Your task to perform on an android device: Search for the new Nintendo switch on Walmart. Image 0: 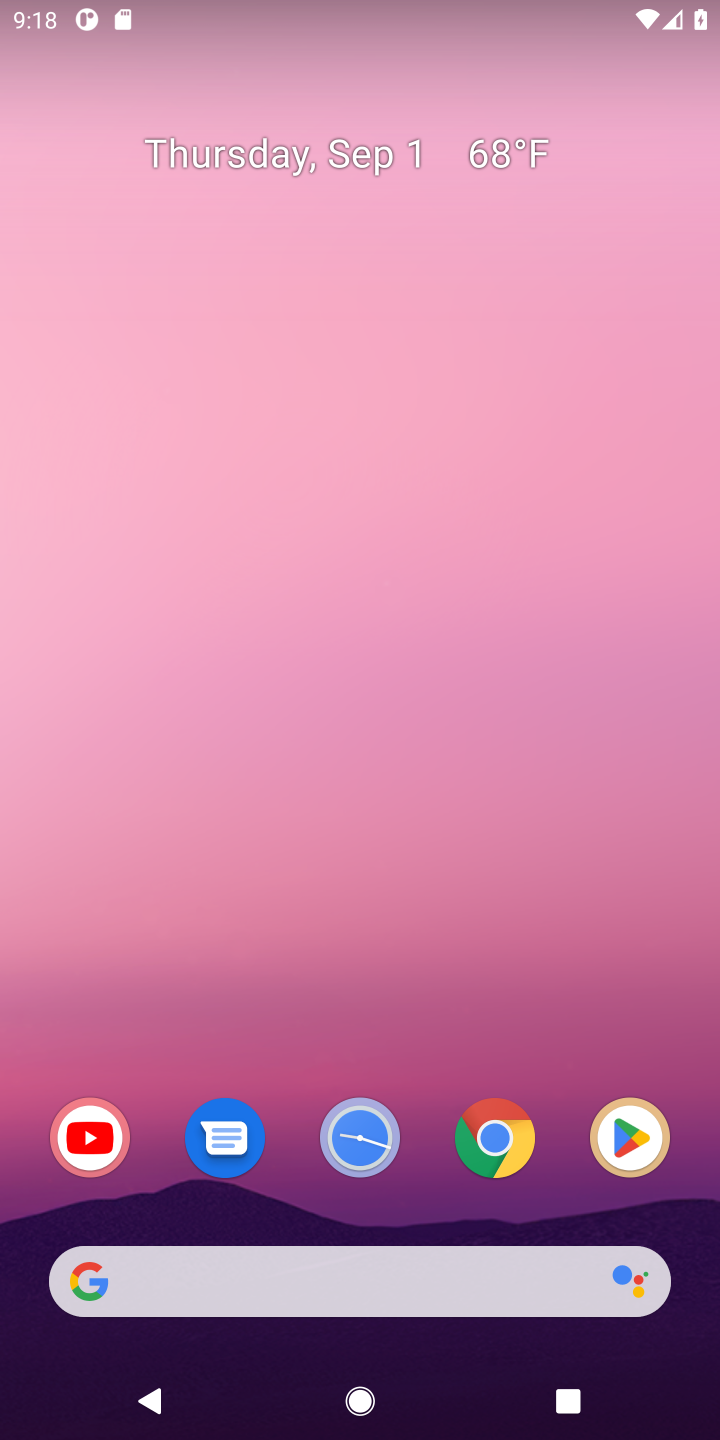
Step 0: click (492, 1133)
Your task to perform on an android device: Search for the new Nintendo switch on Walmart. Image 1: 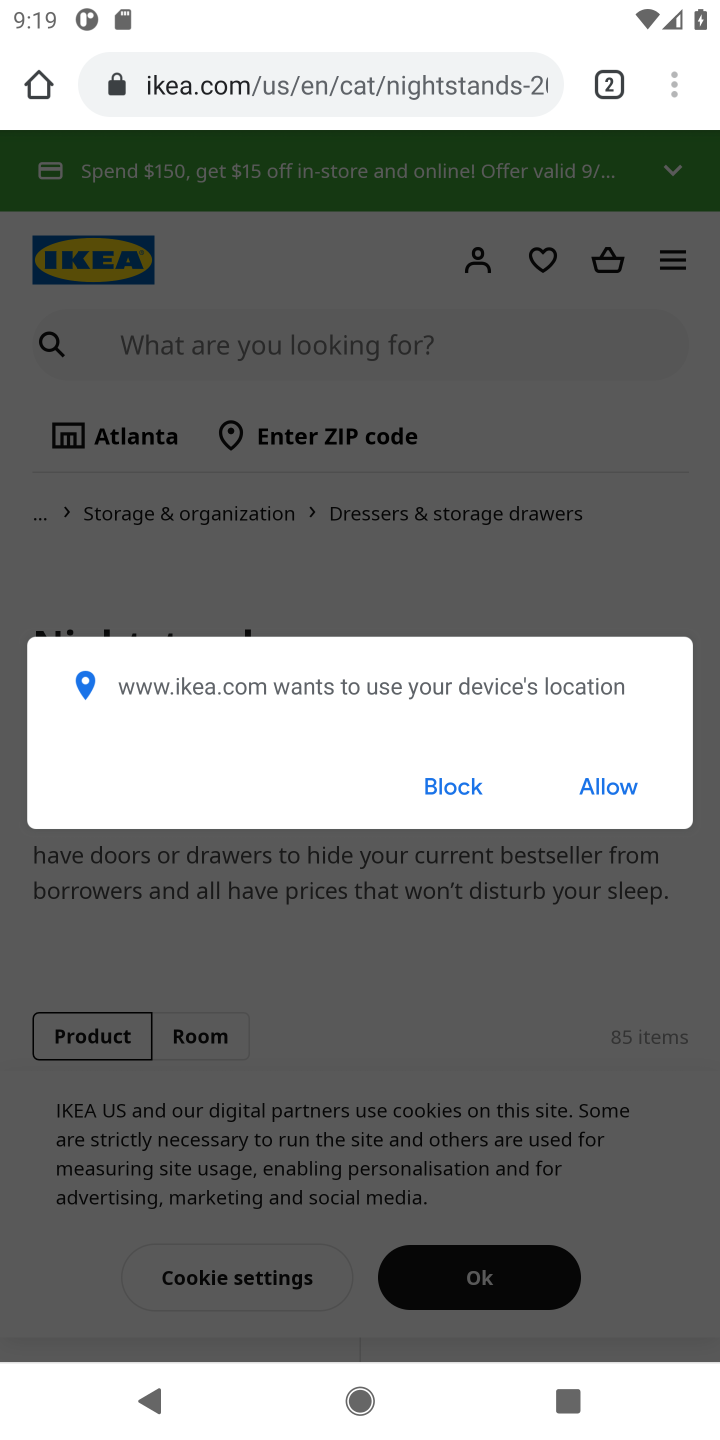
Step 1: click (601, 799)
Your task to perform on an android device: Search for the new Nintendo switch on Walmart. Image 2: 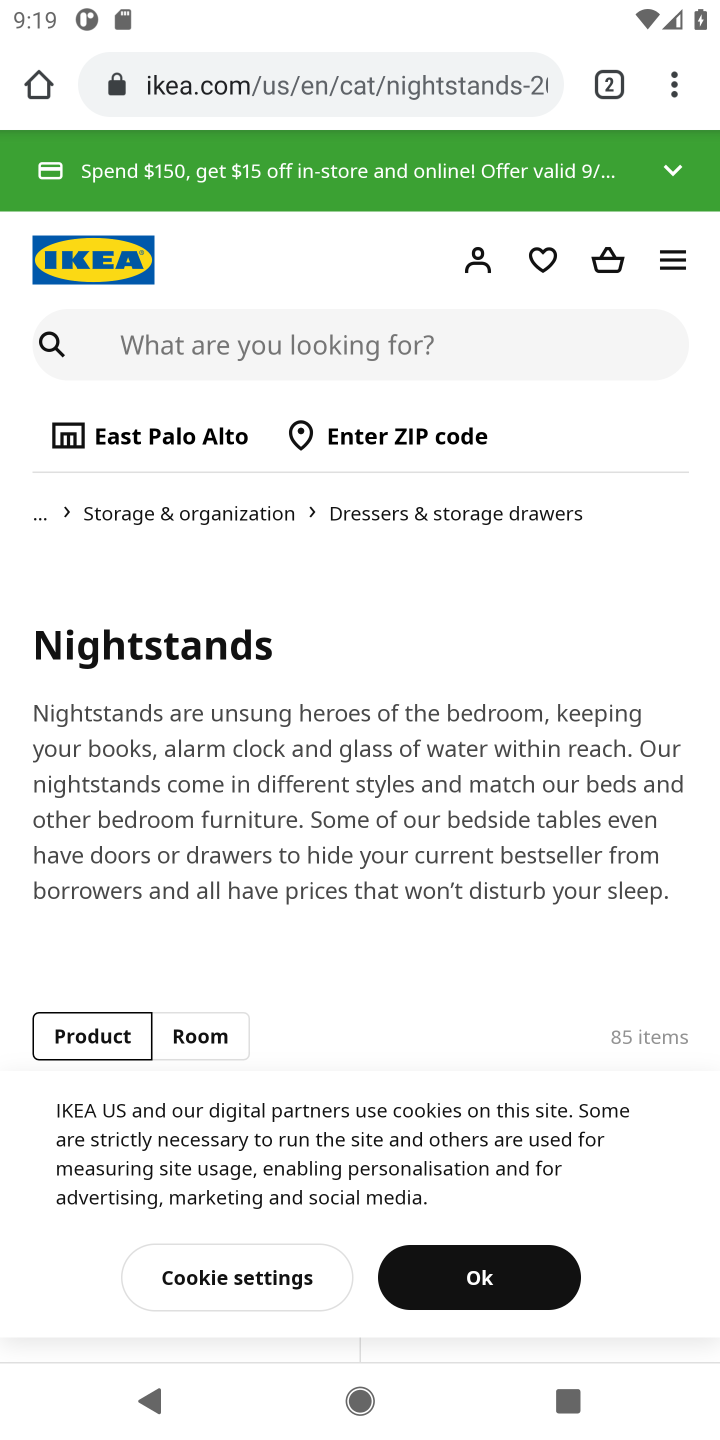
Step 2: click (358, 97)
Your task to perform on an android device: Search for the new Nintendo switch on Walmart. Image 3: 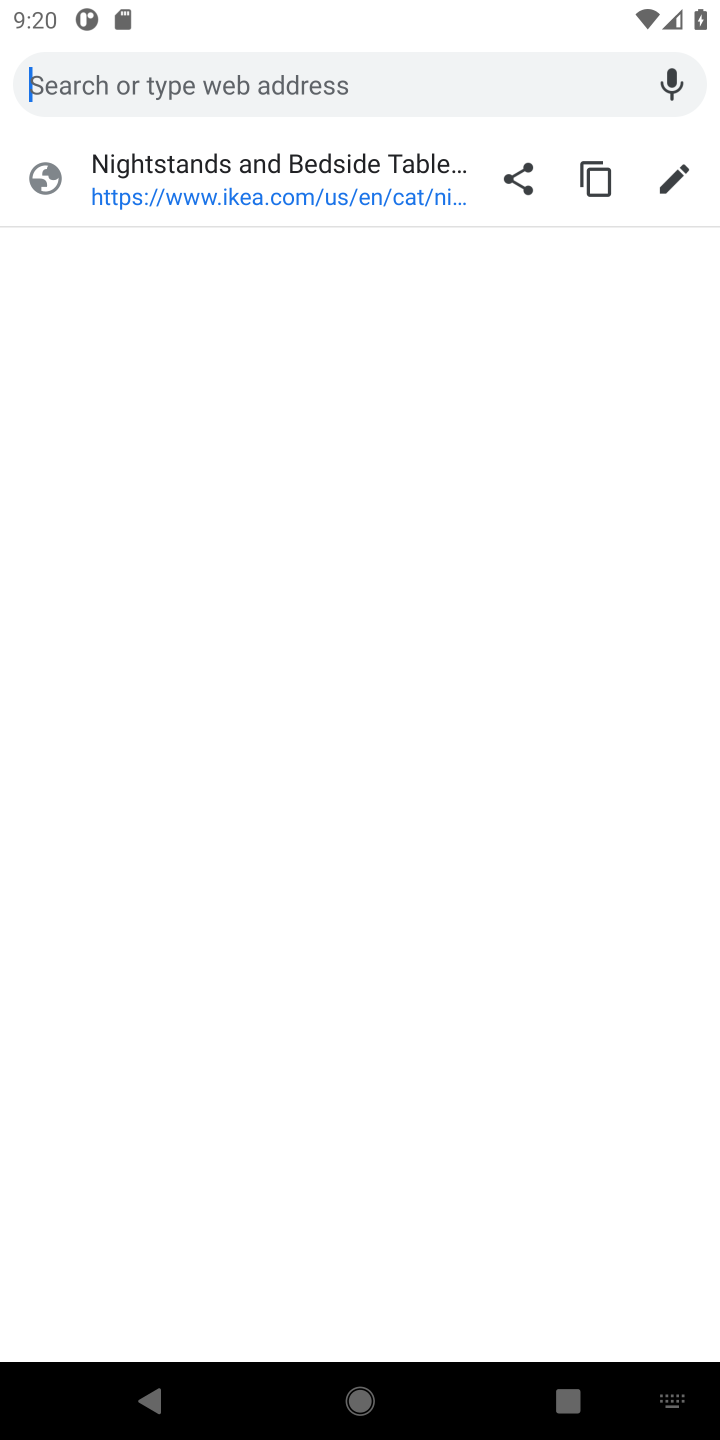
Step 3: type "new Nintendo switch on Walmart"
Your task to perform on an android device: Search for the new Nintendo switch on Walmart. Image 4: 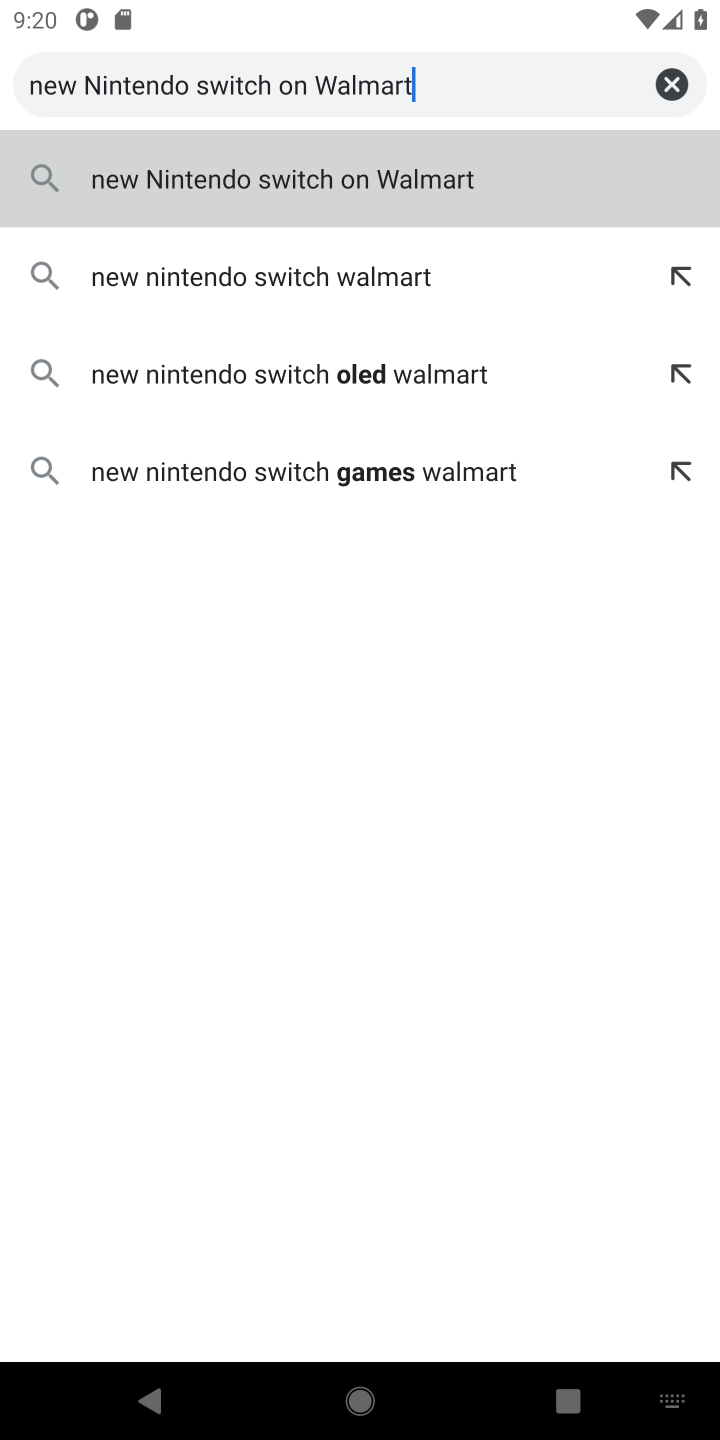
Step 4: click (405, 200)
Your task to perform on an android device: Search for the new Nintendo switch on Walmart. Image 5: 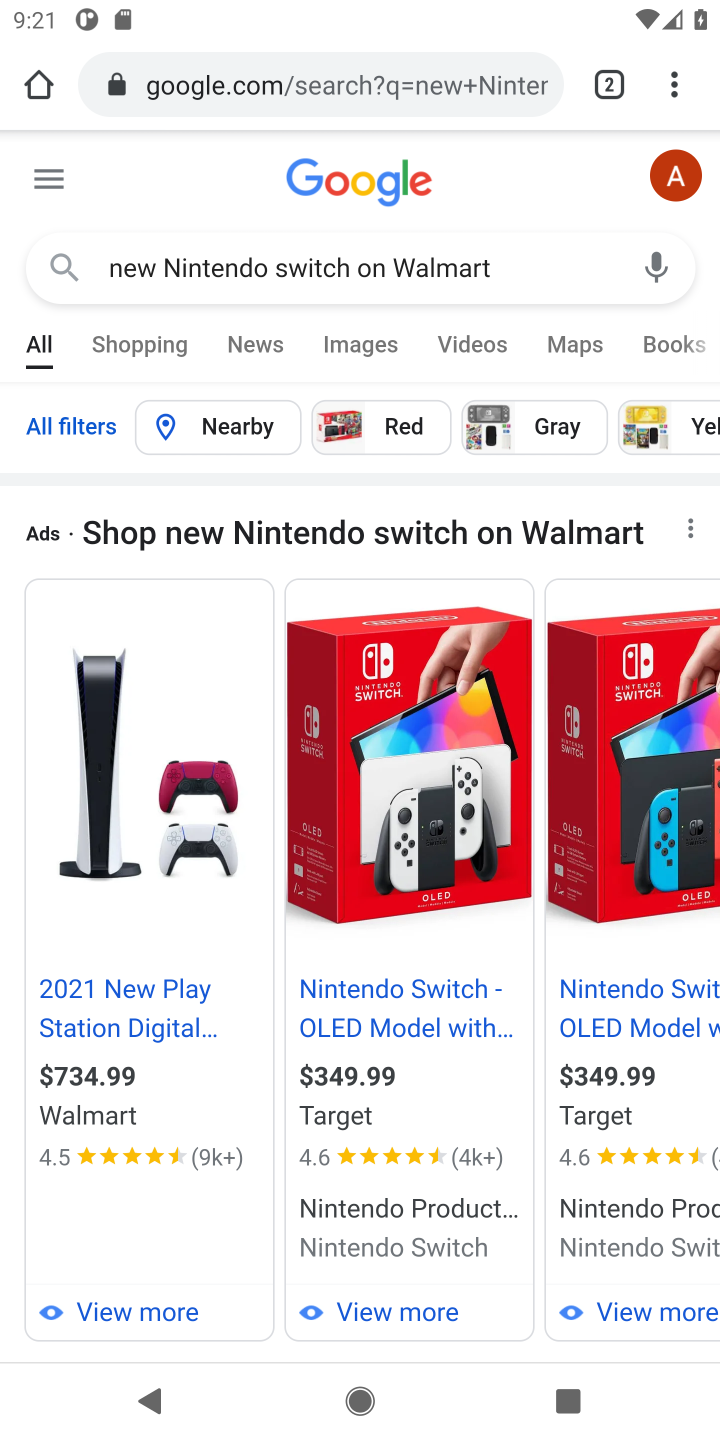
Step 5: click (399, 670)
Your task to perform on an android device: Search for the new Nintendo switch on Walmart. Image 6: 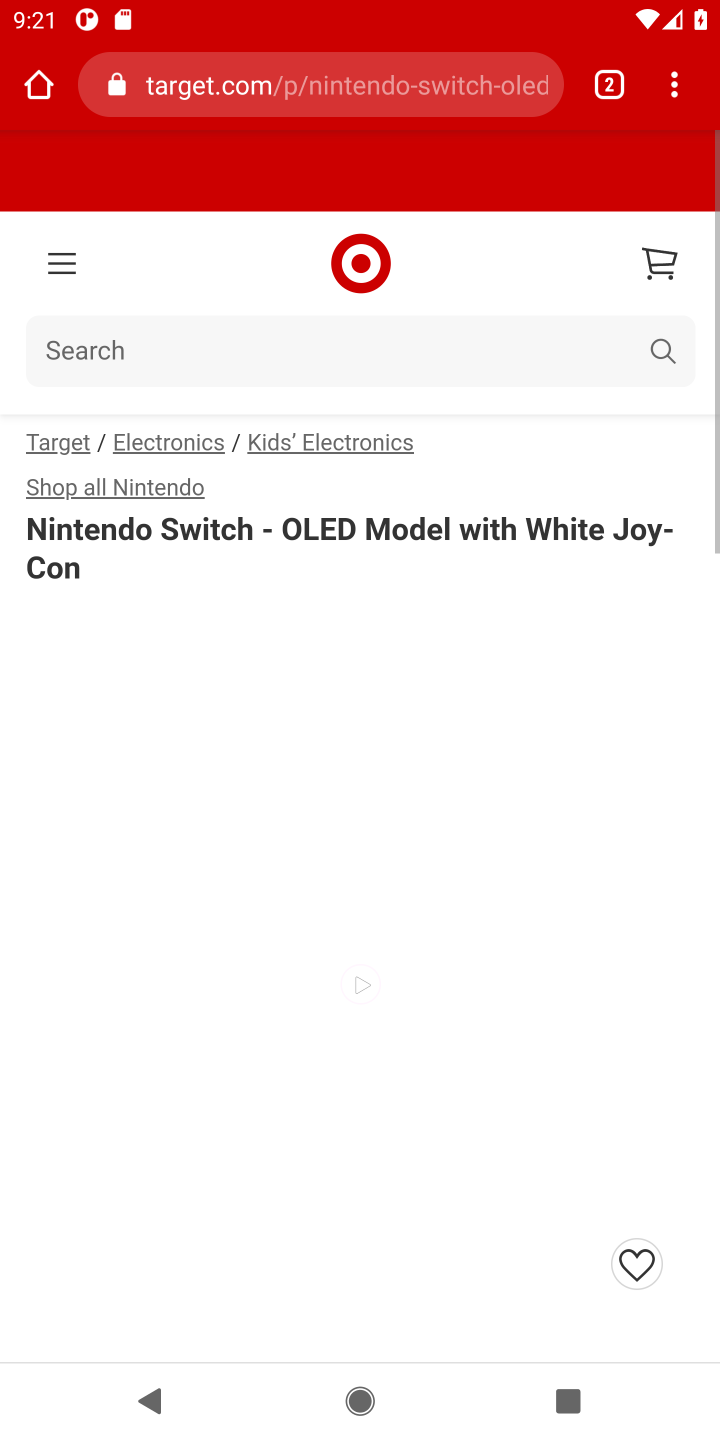
Step 6: click (113, 1306)
Your task to perform on an android device: Search for the new Nintendo switch on Walmart. Image 7: 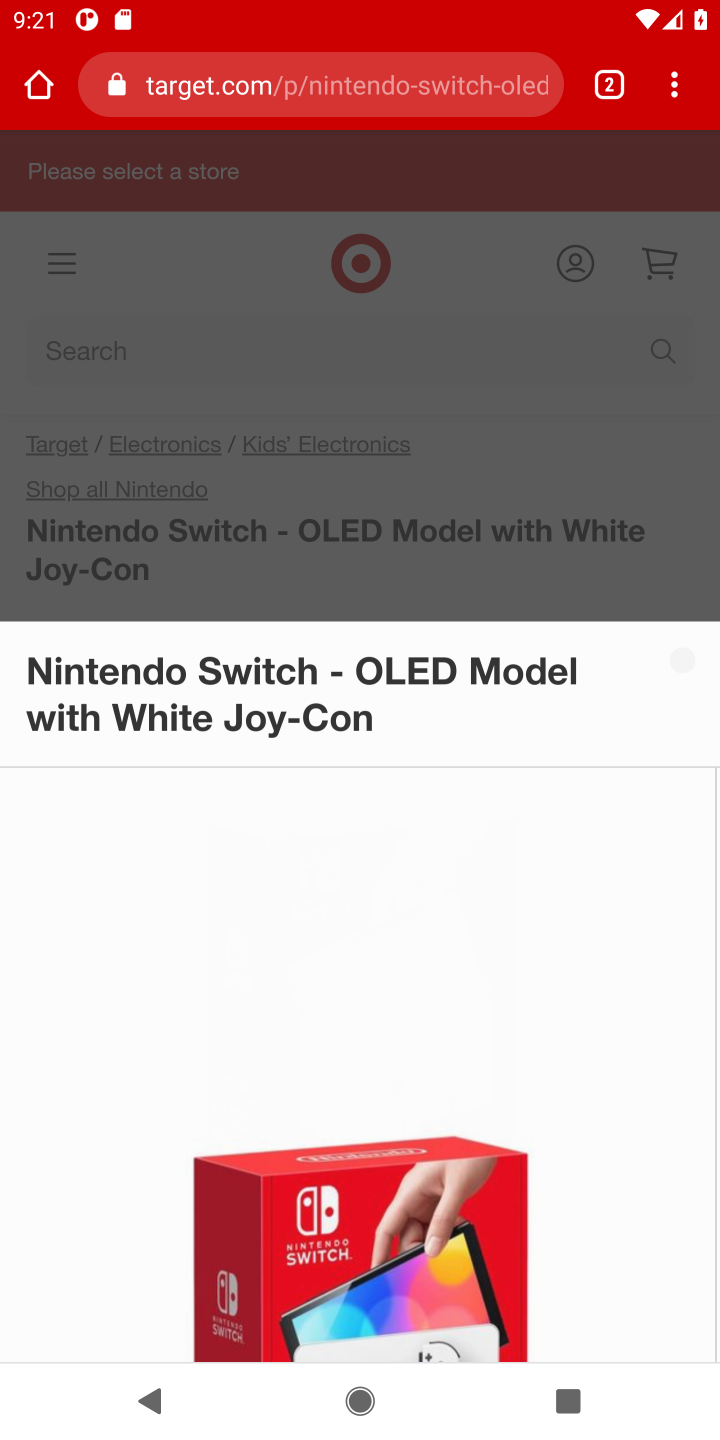
Step 7: task complete